Your task to perform on an android device: Search for Mexican restaurants on Maps Image 0: 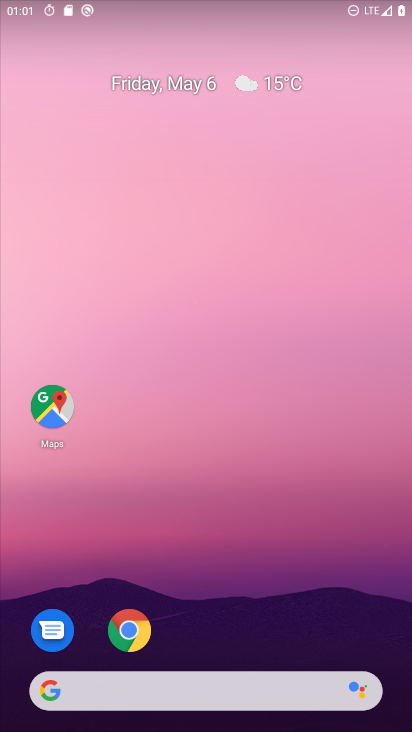
Step 0: click (40, 408)
Your task to perform on an android device: Search for Mexican restaurants on Maps Image 1: 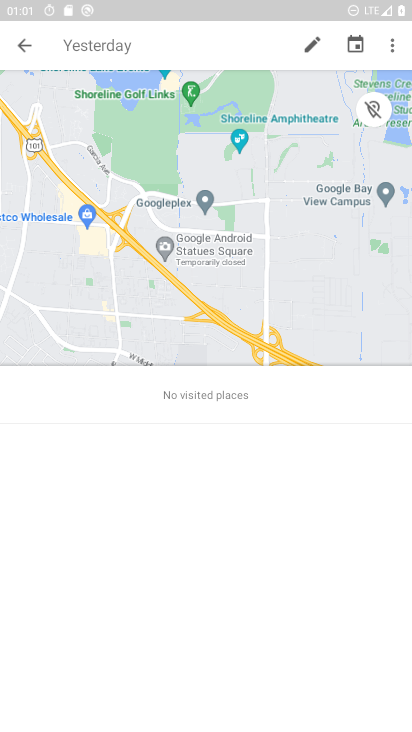
Step 1: click (33, 45)
Your task to perform on an android device: Search for Mexican restaurants on Maps Image 2: 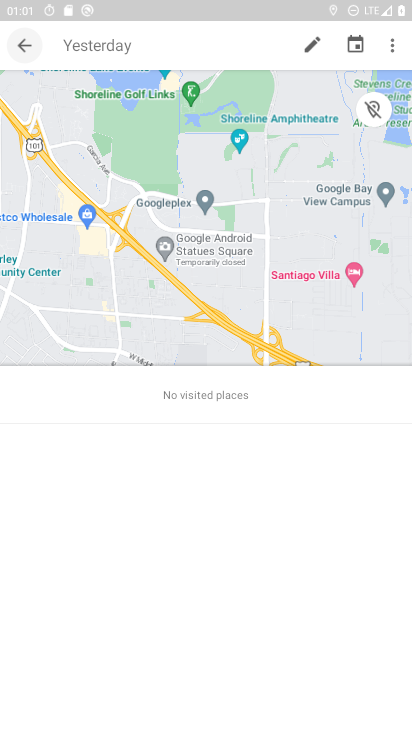
Step 2: click (25, 46)
Your task to perform on an android device: Search for Mexican restaurants on Maps Image 3: 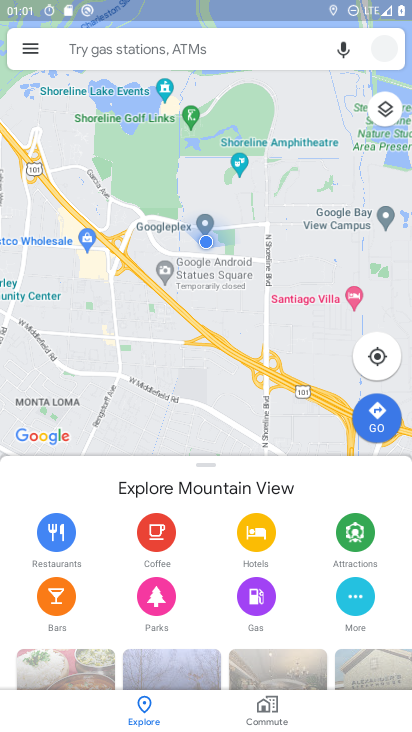
Step 3: click (130, 51)
Your task to perform on an android device: Search for Mexican restaurants on Maps Image 4: 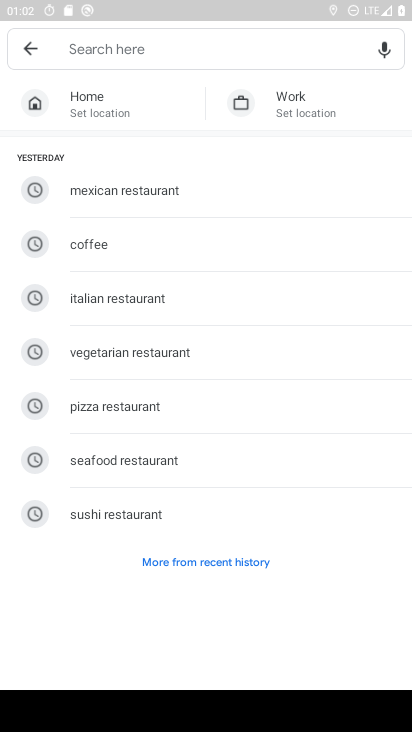
Step 4: type "Mexican restaurants"
Your task to perform on an android device: Search for Mexican restaurants on Maps Image 5: 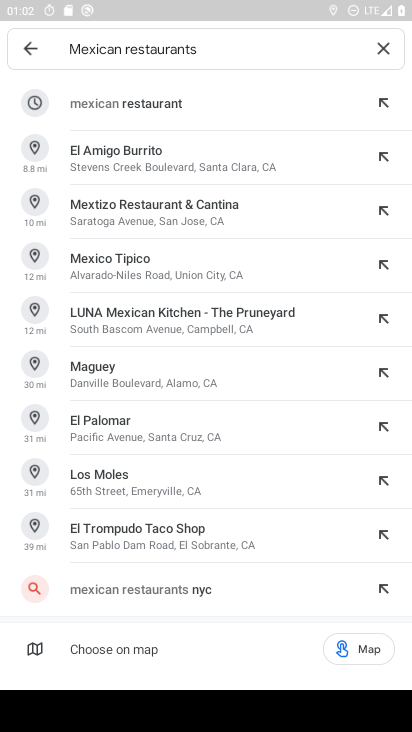
Step 5: press enter
Your task to perform on an android device: Search for Mexican restaurants on Maps Image 6: 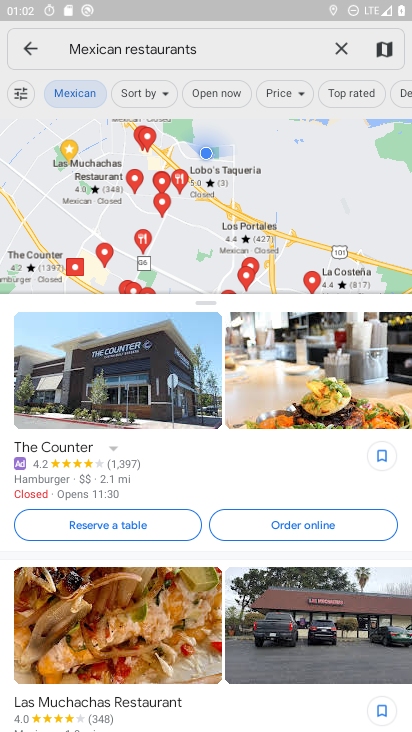
Step 6: task complete